Your task to perform on an android device: Open eBay Image 0: 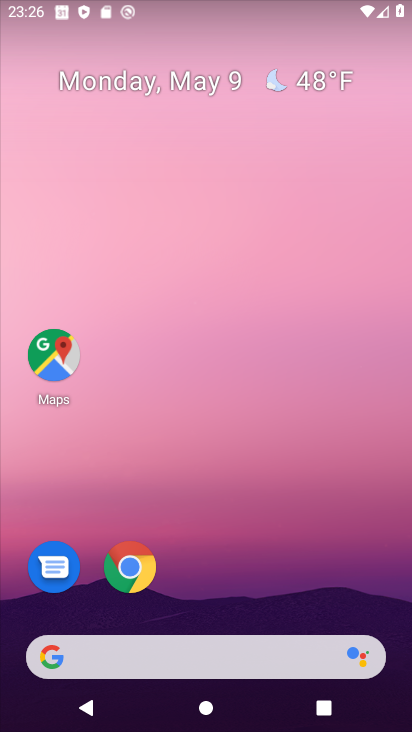
Step 0: drag from (198, 585) to (243, 29)
Your task to perform on an android device: Open eBay Image 1: 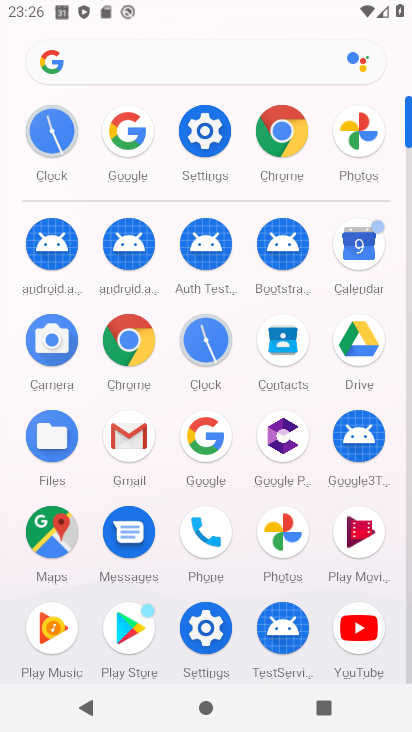
Step 1: click (122, 128)
Your task to perform on an android device: Open eBay Image 2: 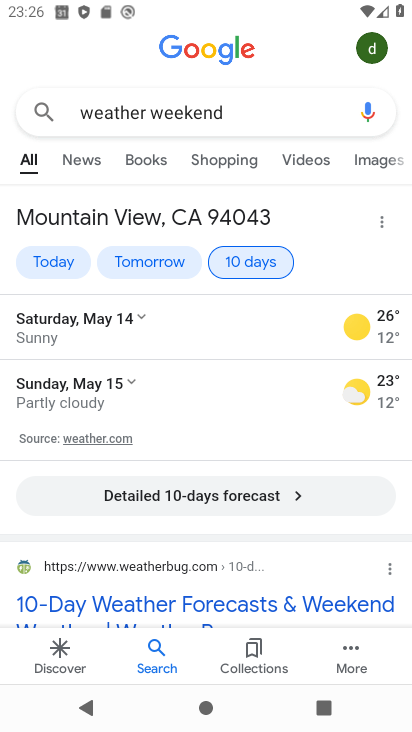
Step 2: click (256, 113)
Your task to perform on an android device: Open eBay Image 3: 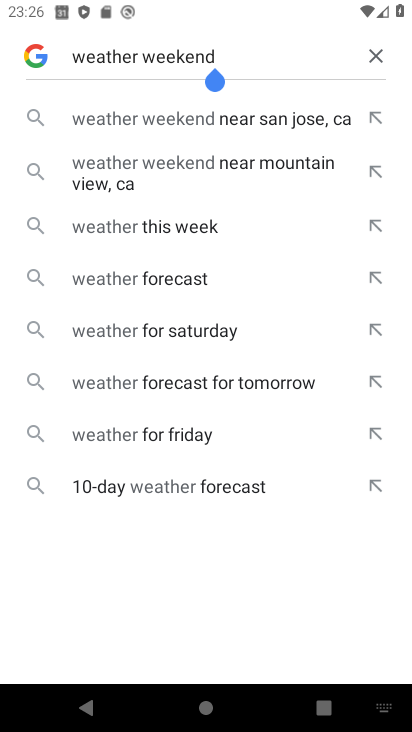
Step 3: click (376, 57)
Your task to perform on an android device: Open eBay Image 4: 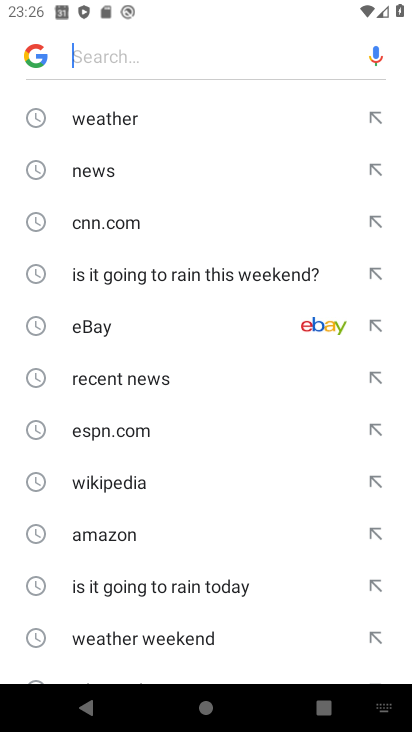
Step 4: click (247, 60)
Your task to perform on an android device: Open eBay Image 5: 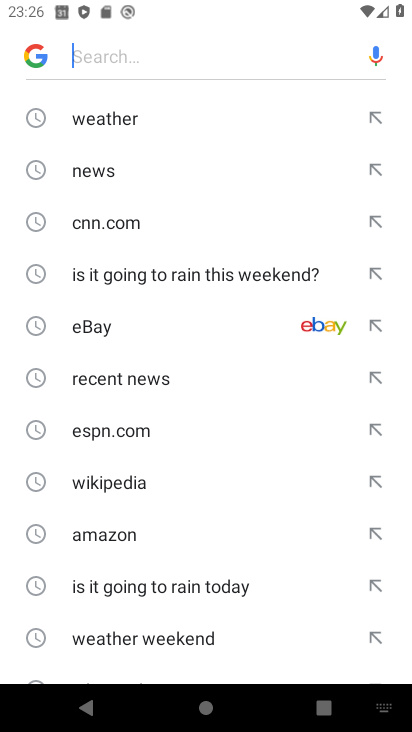
Step 5: click (88, 334)
Your task to perform on an android device: Open eBay Image 6: 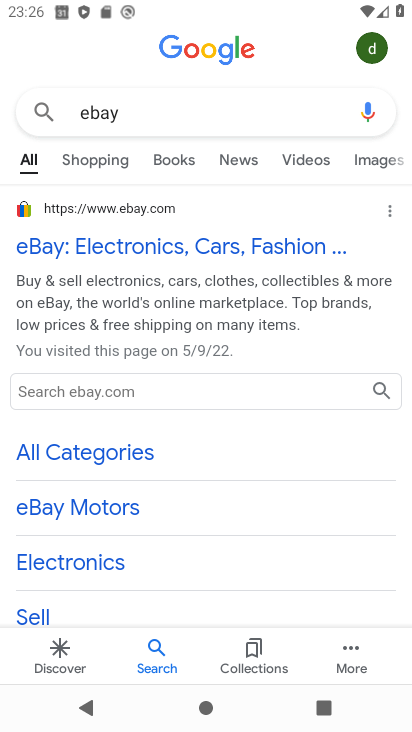
Step 6: click (120, 246)
Your task to perform on an android device: Open eBay Image 7: 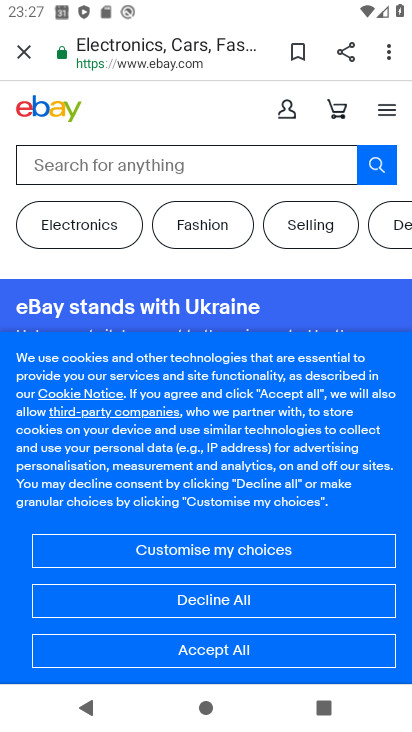
Step 7: task complete